Your task to perform on an android device: turn on the 24-hour format for clock Image 0: 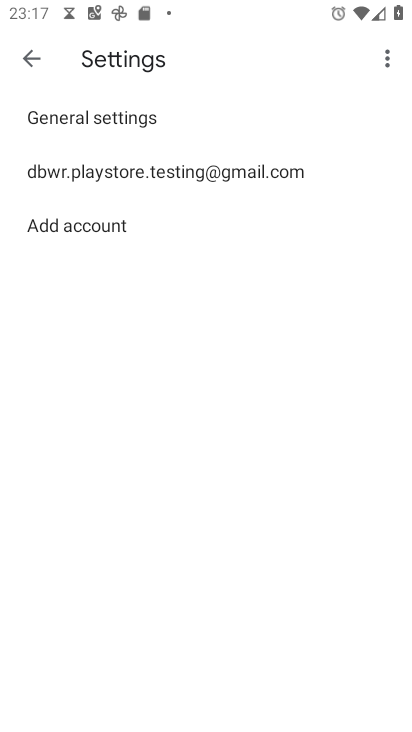
Step 0: press home button
Your task to perform on an android device: turn on the 24-hour format for clock Image 1: 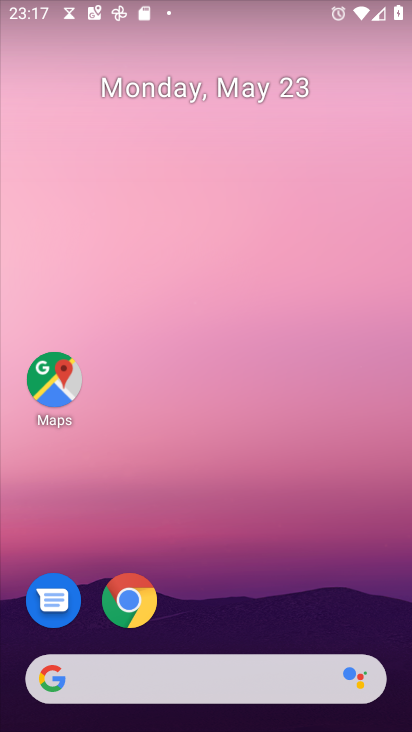
Step 1: drag from (224, 727) to (226, 171)
Your task to perform on an android device: turn on the 24-hour format for clock Image 2: 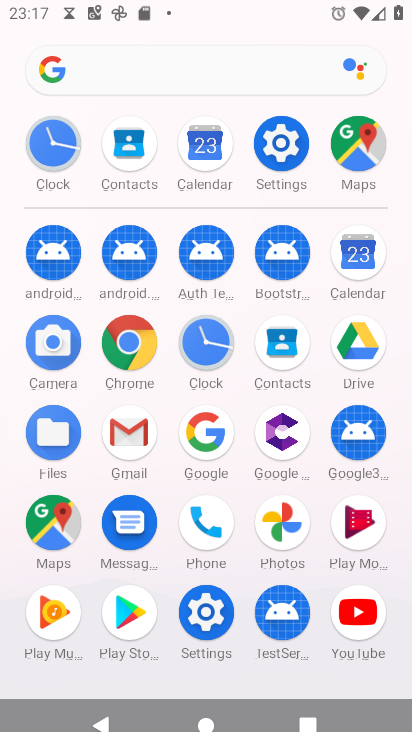
Step 2: click (198, 349)
Your task to perform on an android device: turn on the 24-hour format for clock Image 3: 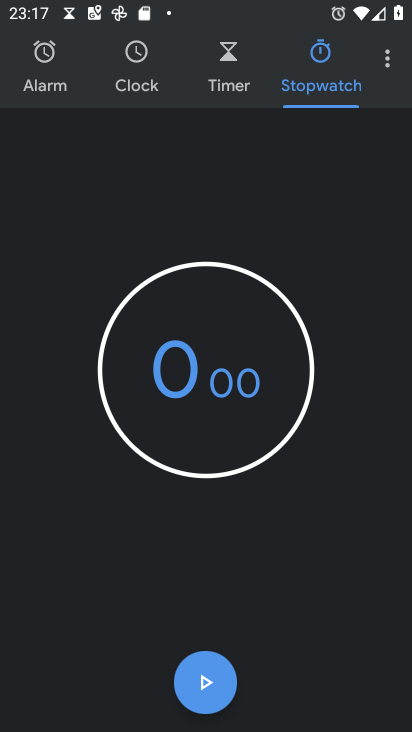
Step 3: click (387, 66)
Your task to perform on an android device: turn on the 24-hour format for clock Image 4: 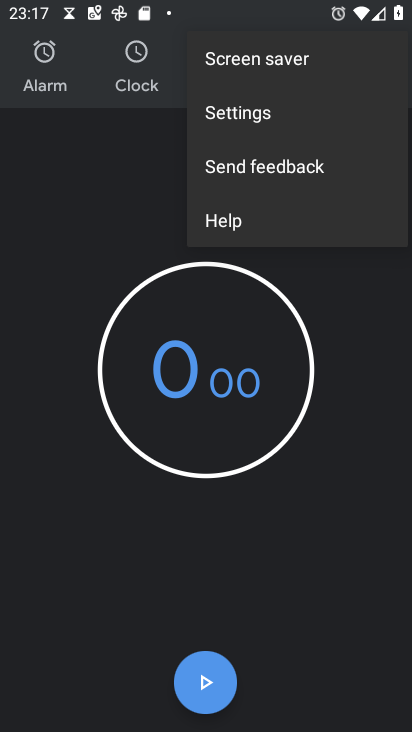
Step 4: click (247, 119)
Your task to perform on an android device: turn on the 24-hour format for clock Image 5: 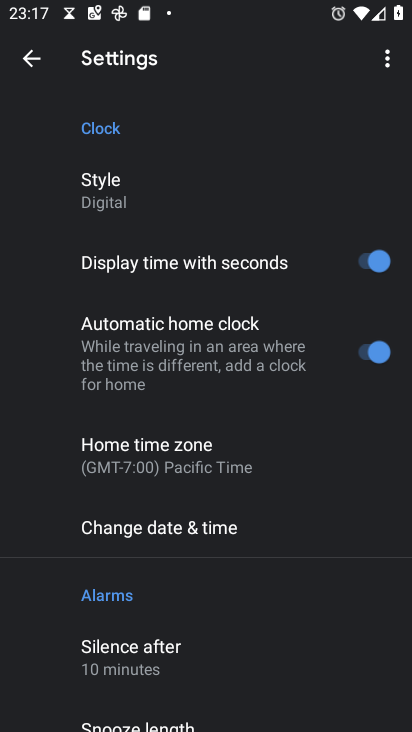
Step 5: click (150, 524)
Your task to perform on an android device: turn on the 24-hour format for clock Image 6: 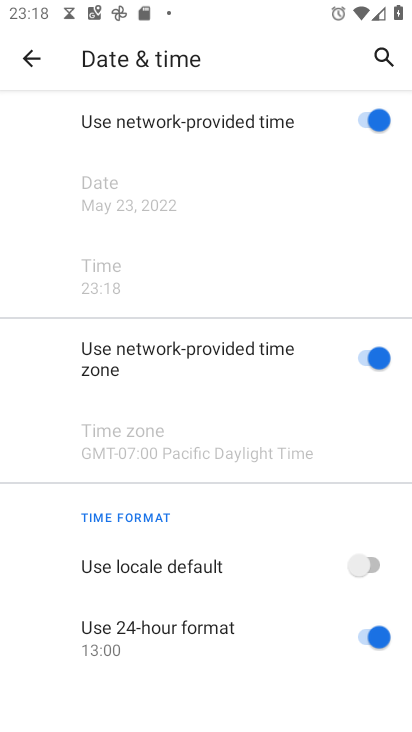
Step 6: task complete